Your task to perform on an android device: check data usage Image 0: 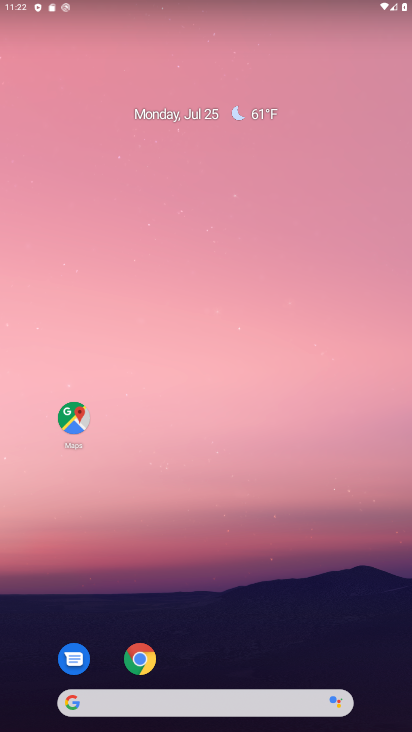
Step 0: click (387, 347)
Your task to perform on an android device: check data usage Image 1: 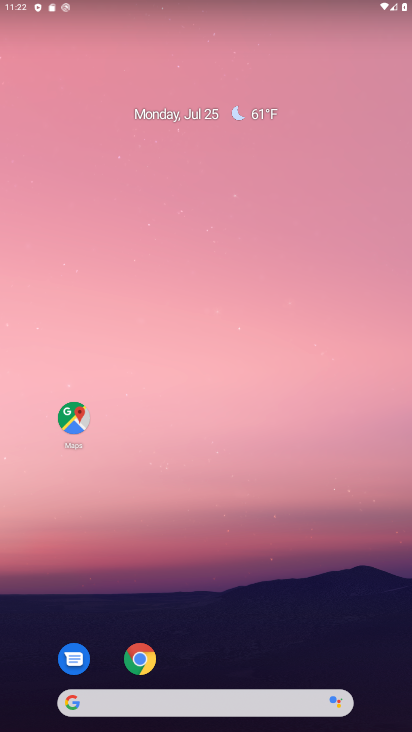
Step 1: drag from (199, 721) to (225, 174)
Your task to perform on an android device: check data usage Image 2: 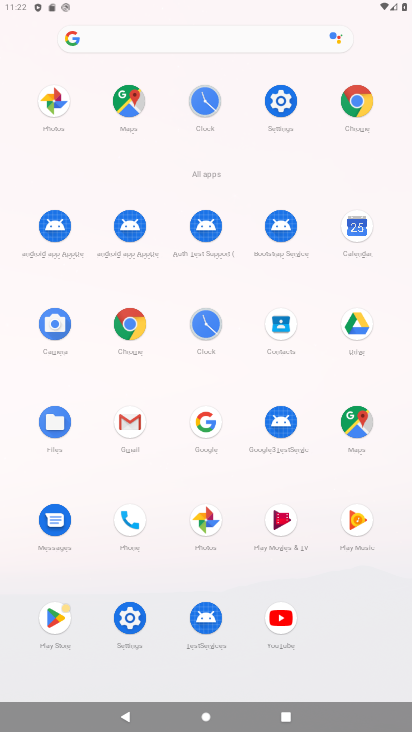
Step 2: click (285, 96)
Your task to perform on an android device: check data usage Image 3: 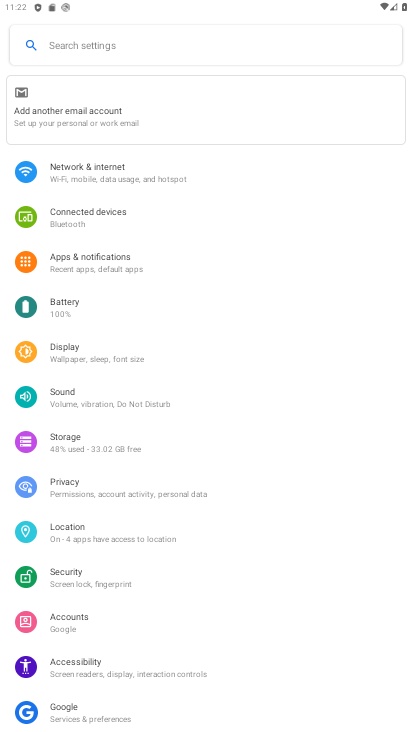
Step 3: click (84, 175)
Your task to perform on an android device: check data usage Image 4: 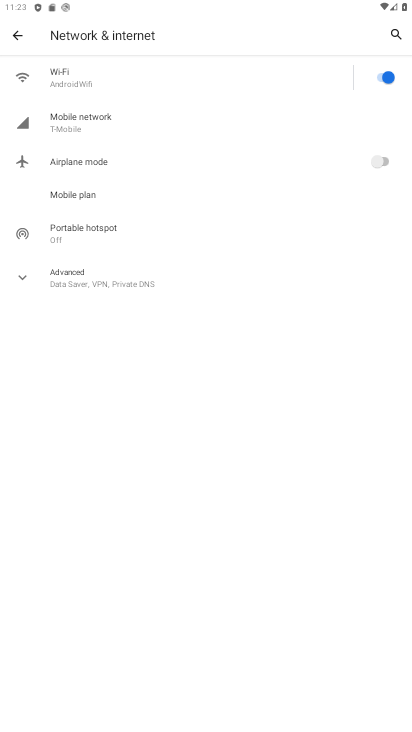
Step 4: click (80, 123)
Your task to perform on an android device: check data usage Image 5: 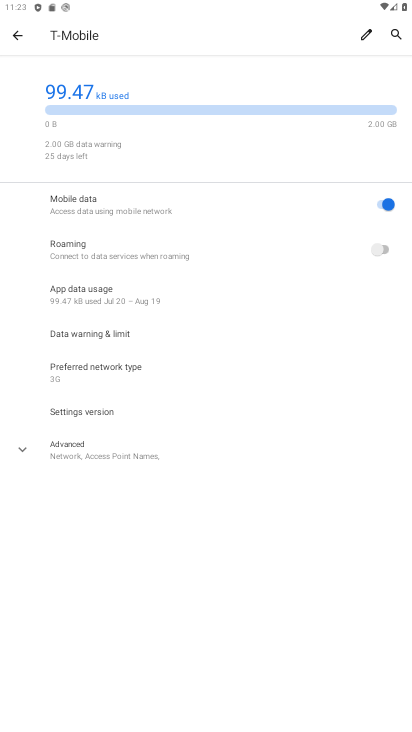
Step 5: task complete